Your task to perform on an android device: Open internet settings Image 0: 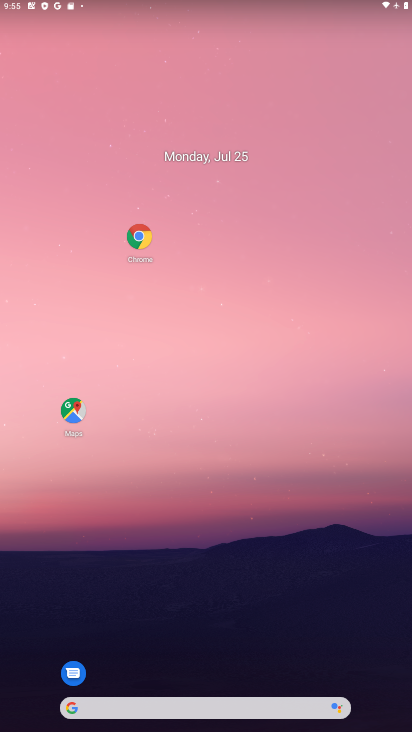
Step 0: drag from (294, 661) to (290, 113)
Your task to perform on an android device: Open internet settings Image 1: 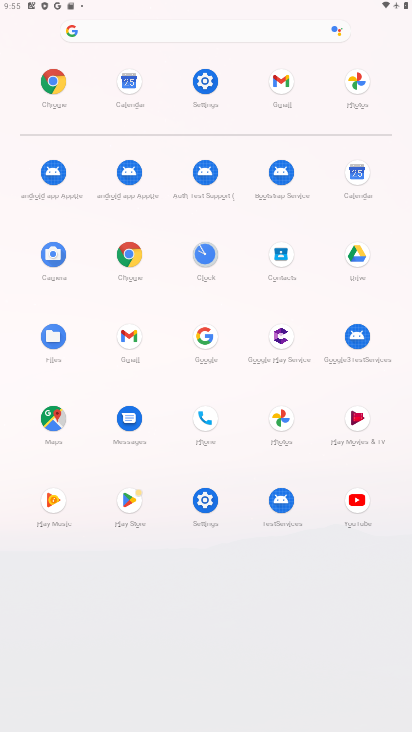
Step 1: click (198, 83)
Your task to perform on an android device: Open internet settings Image 2: 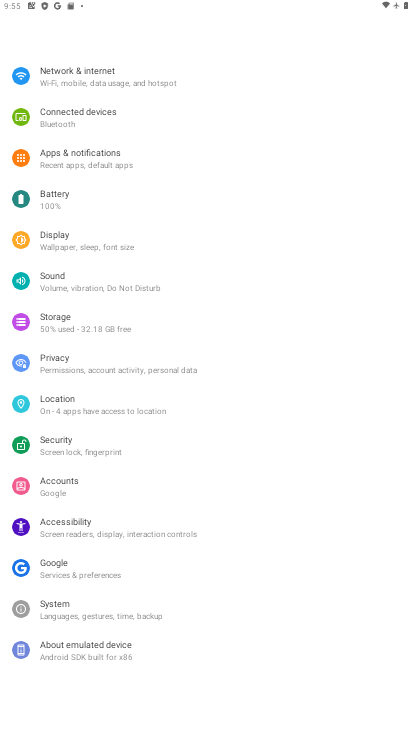
Step 2: task complete